Your task to perform on an android device: Go to display settings Image 0: 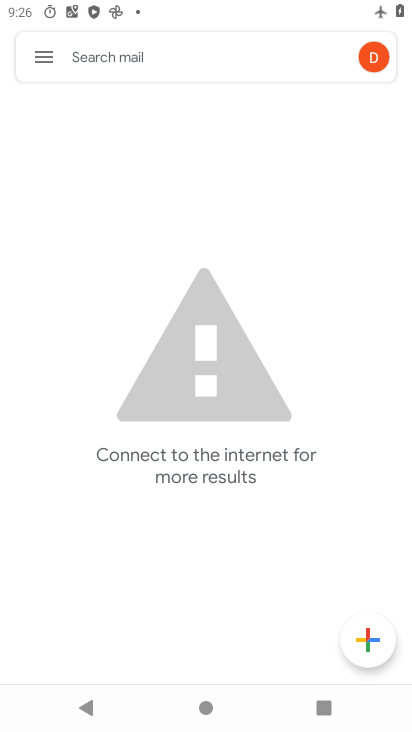
Step 0: press home button
Your task to perform on an android device: Go to display settings Image 1: 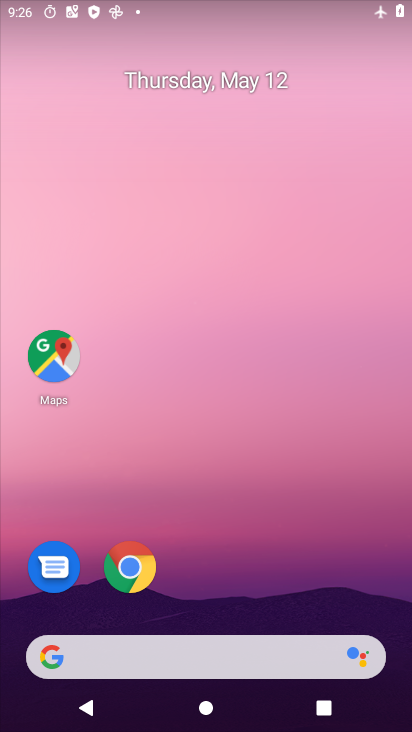
Step 1: drag from (223, 602) to (327, 77)
Your task to perform on an android device: Go to display settings Image 2: 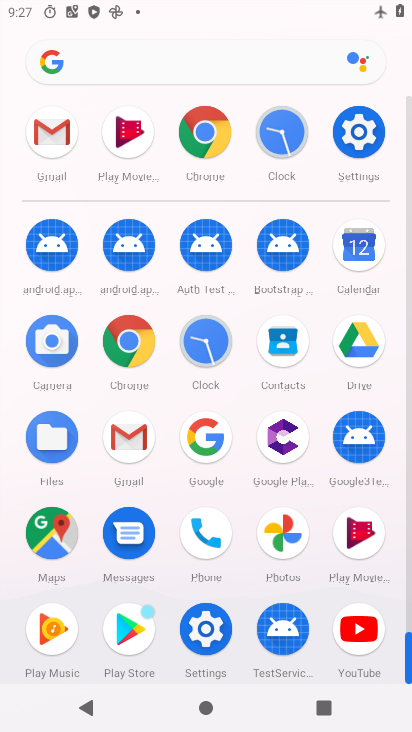
Step 2: click (356, 158)
Your task to perform on an android device: Go to display settings Image 3: 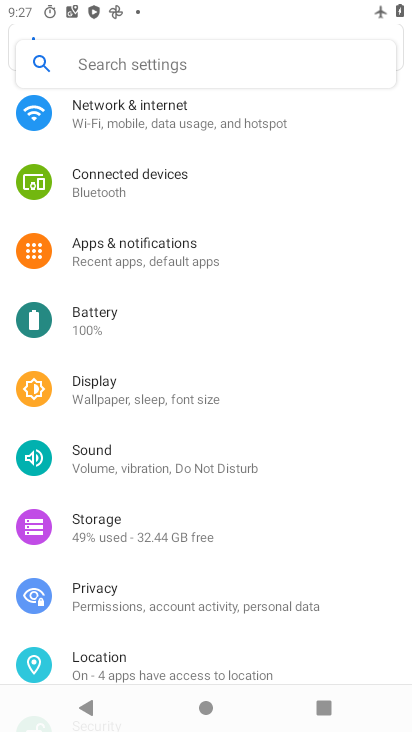
Step 3: drag from (199, 465) to (189, 343)
Your task to perform on an android device: Go to display settings Image 4: 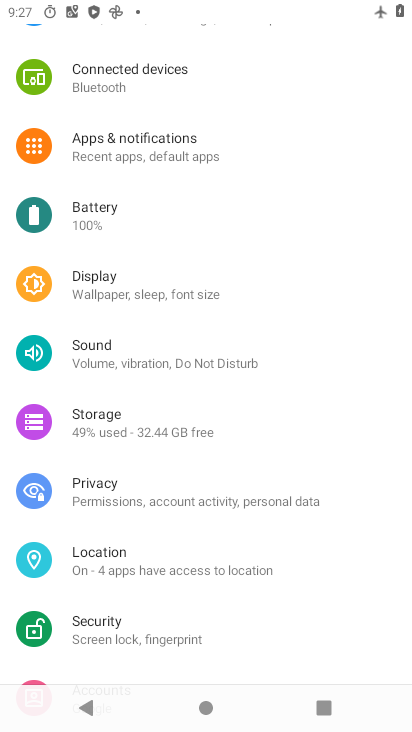
Step 4: click (171, 293)
Your task to perform on an android device: Go to display settings Image 5: 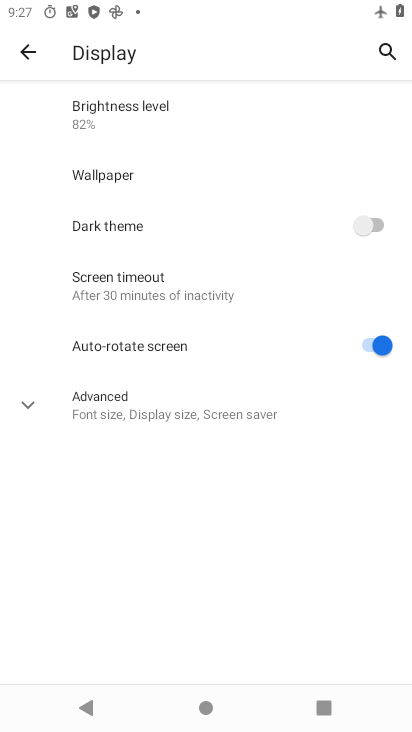
Step 5: click (161, 405)
Your task to perform on an android device: Go to display settings Image 6: 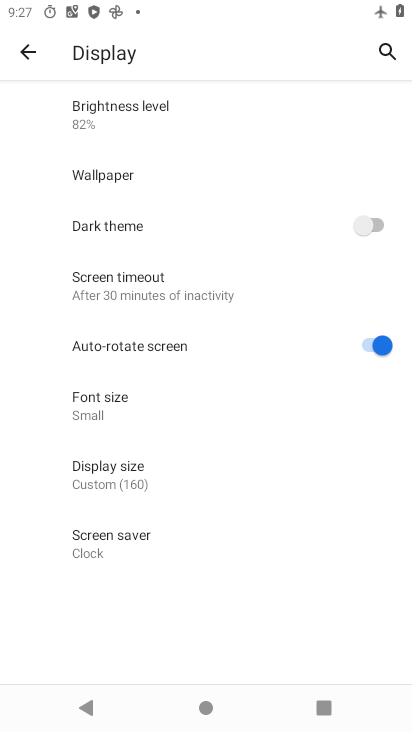
Step 6: task complete